Your task to perform on an android device: turn on improve location accuracy Image 0: 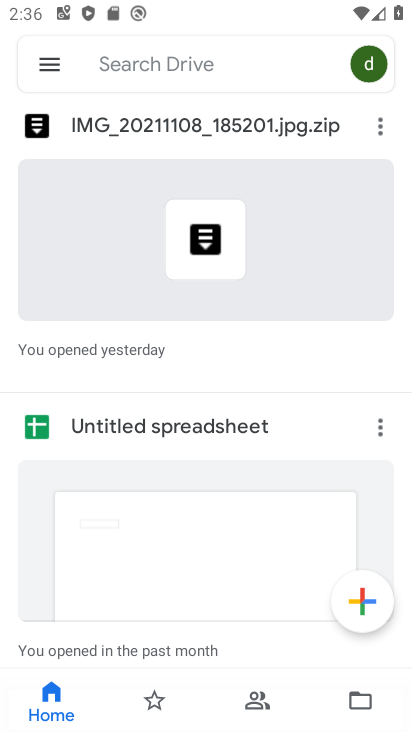
Step 0: press back button
Your task to perform on an android device: turn on improve location accuracy Image 1: 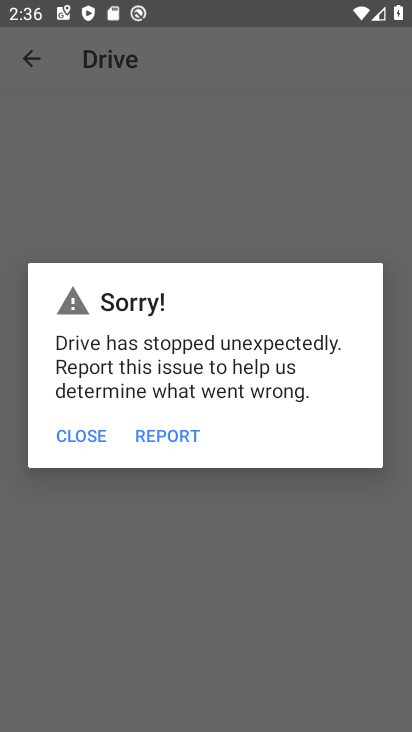
Step 1: press home button
Your task to perform on an android device: turn on improve location accuracy Image 2: 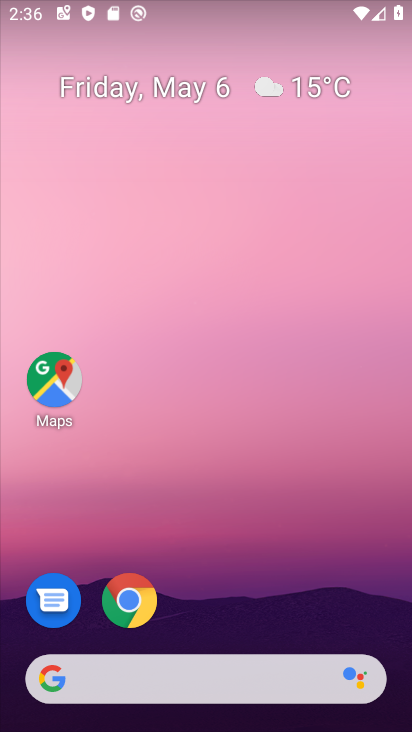
Step 2: drag from (225, 584) to (236, 6)
Your task to perform on an android device: turn on improve location accuracy Image 3: 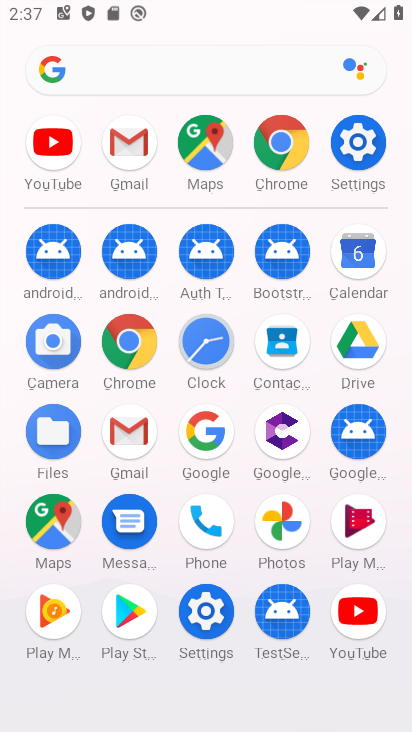
Step 3: drag from (3, 606) to (1, 173)
Your task to perform on an android device: turn on improve location accuracy Image 4: 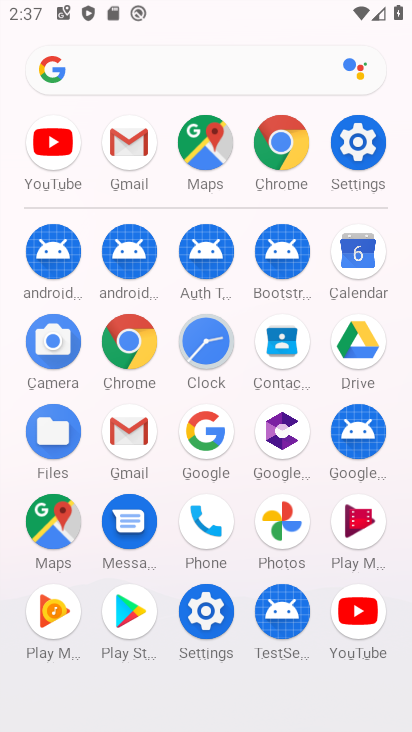
Step 4: drag from (20, 595) to (24, 260)
Your task to perform on an android device: turn on improve location accuracy Image 5: 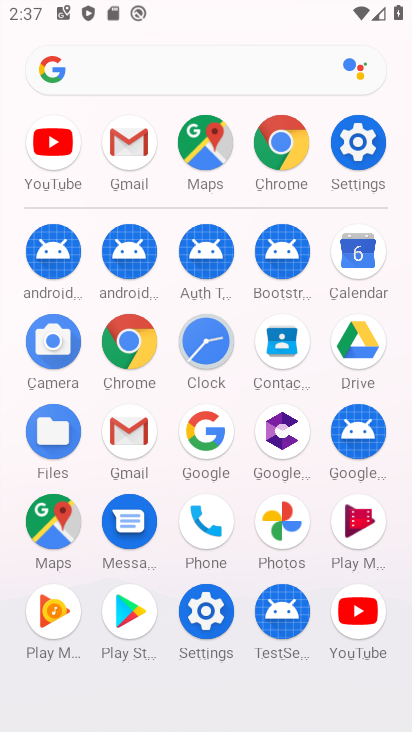
Step 5: click (208, 611)
Your task to perform on an android device: turn on improve location accuracy Image 6: 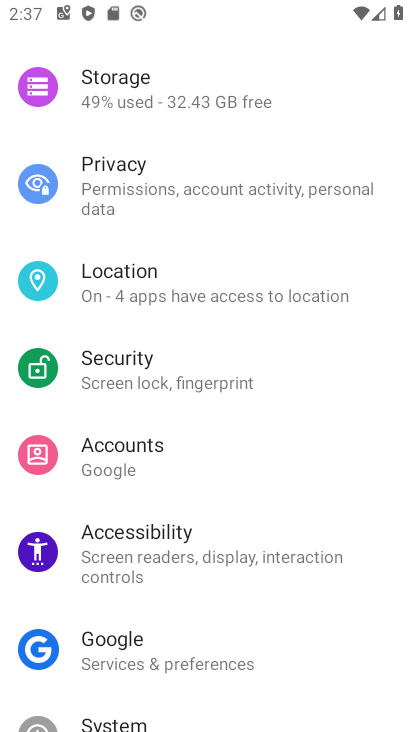
Step 6: drag from (264, 548) to (261, 76)
Your task to perform on an android device: turn on improve location accuracy Image 7: 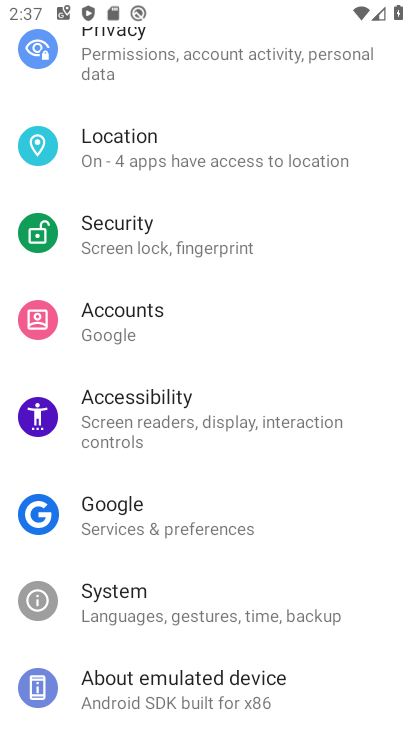
Step 7: drag from (234, 528) to (233, 79)
Your task to perform on an android device: turn on improve location accuracy Image 8: 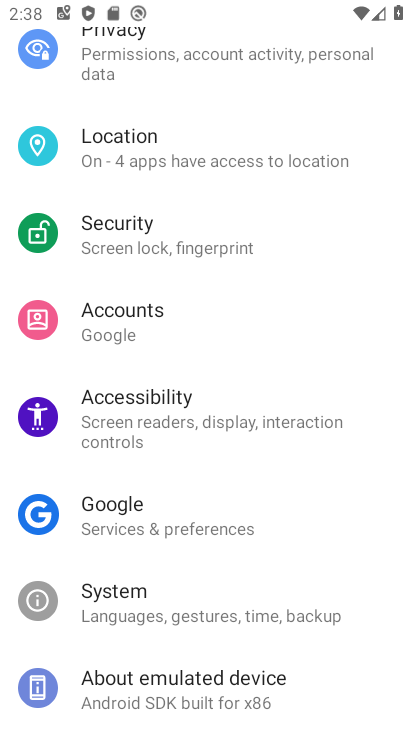
Step 8: click (208, 131)
Your task to perform on an android device: turn on improve location accuracy Image 9: 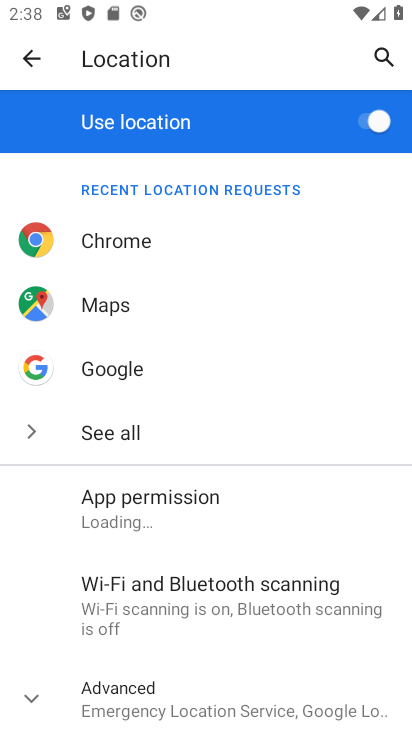
Step 9: click (106, 687)
Your task to perform on an android device: turn on improve location accuracy Image 10: 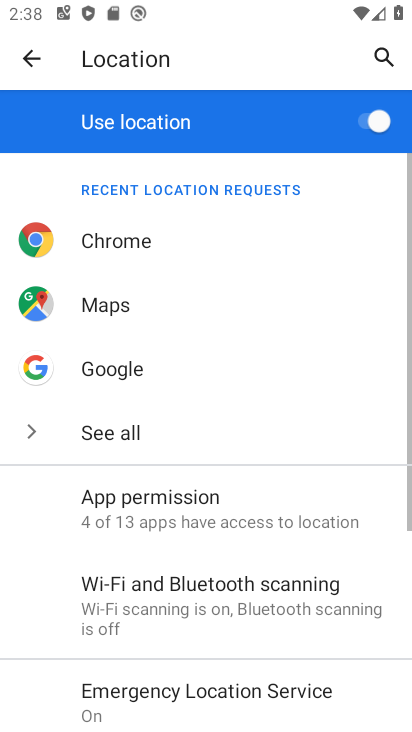
Step 10: drag from (269, 656) to (287, 188)
Your task to perform on an android device: turn on improve location accuracy Image 11: 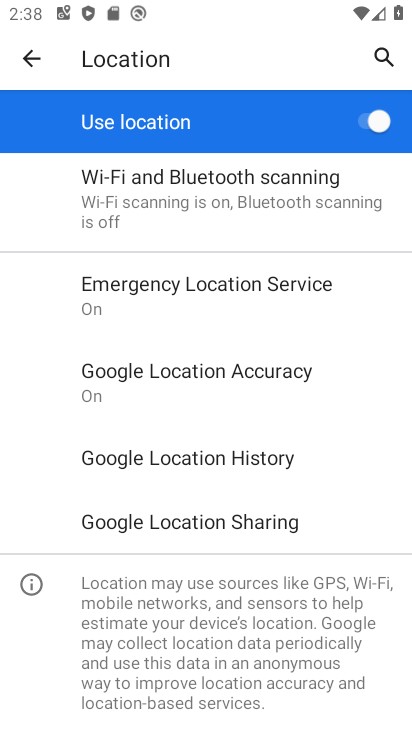
Step 11: click (232, 382)
Your task to perform on an android device: turn on improve location accuracy Image 12: 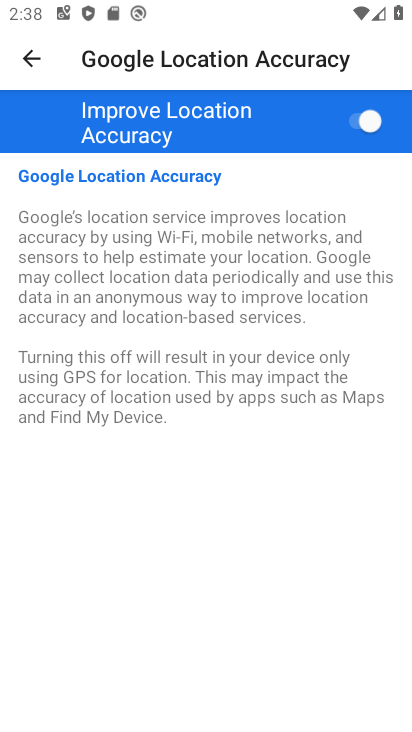
Step 12: task complete